Your task to perform on an android device: show emergency info Image 0: 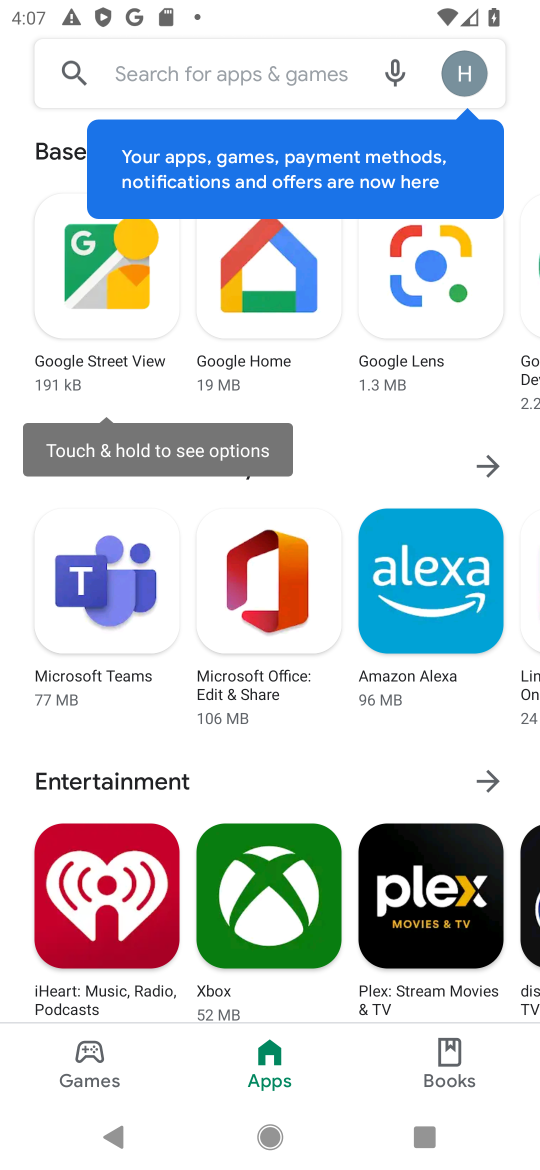
Step 0: press home button
Your task to perform on an android device: show emergency info Image 1: 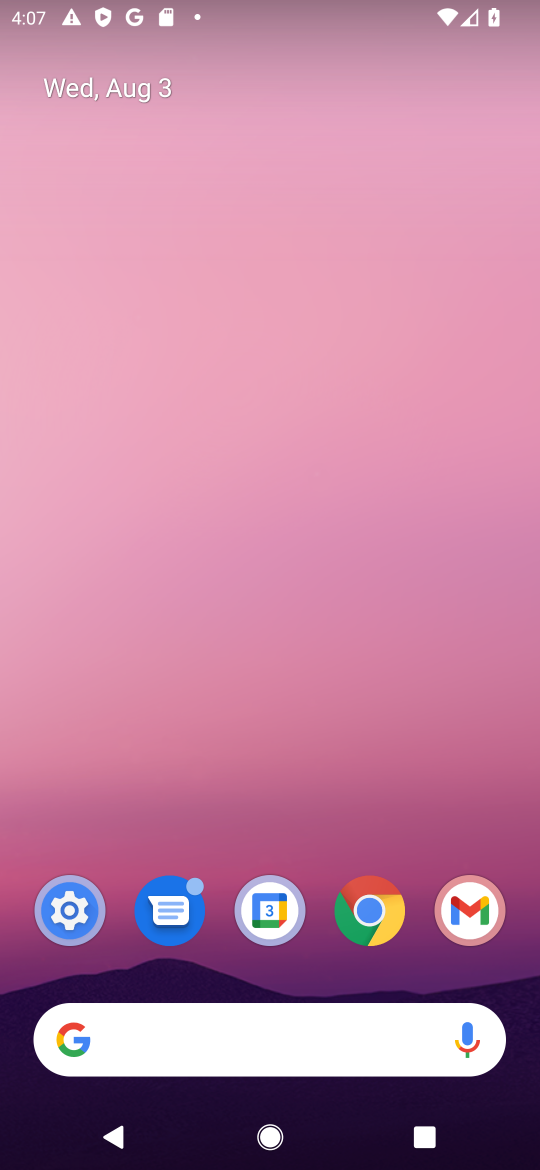
Step 1: drag from (61, 1111) to (309, 2)
Your task to perform on an android device: show emergency info Image 2: 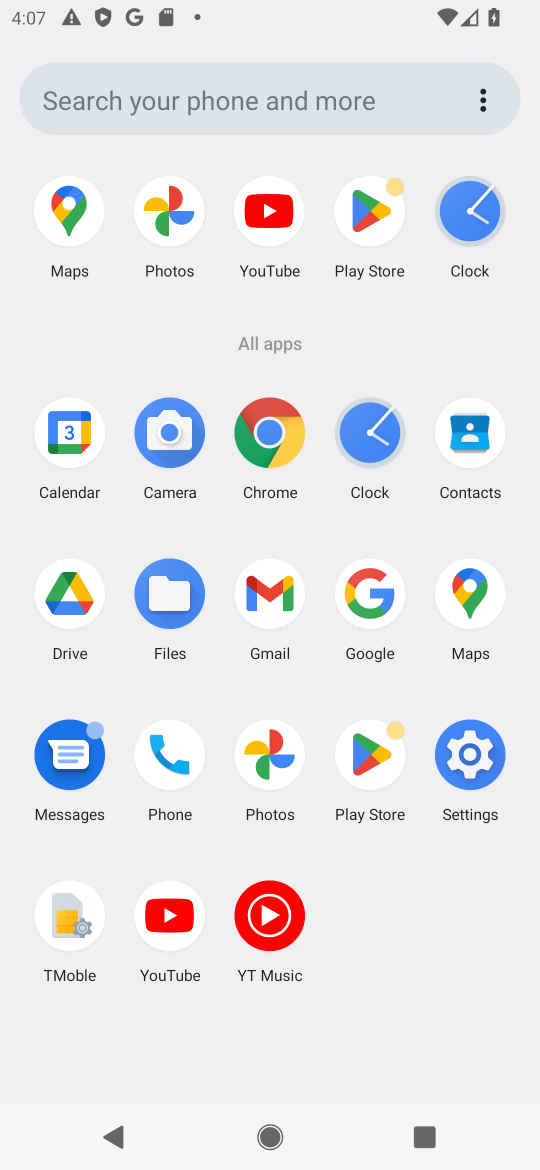
Step 2: click (471, 775)
Your task to perform on an android device: show emergency info Image 3: 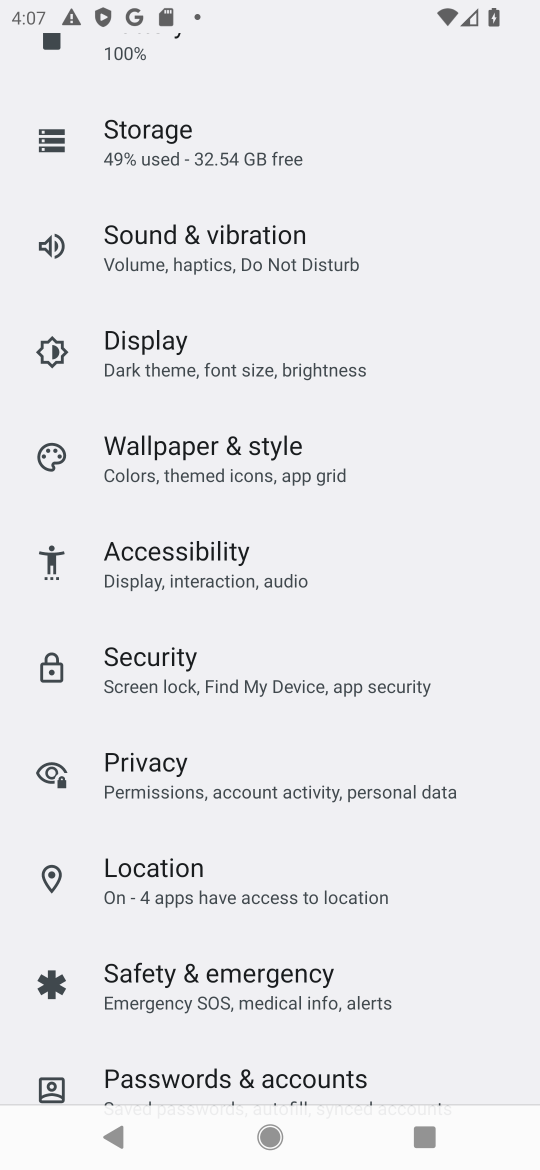
Step 3: drag from (313, 1026) to (425, 307)
Your task to perform on an android device: show emergency info Image 4: 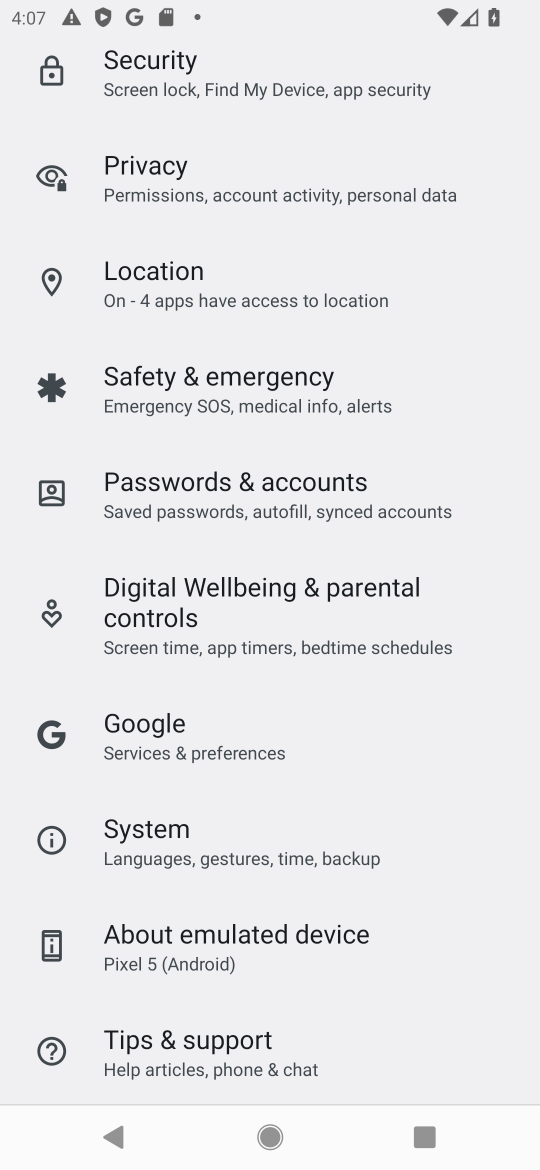
Step 4: click (250, 398)
Your task to perform on an android device: show emergency info Image 5: 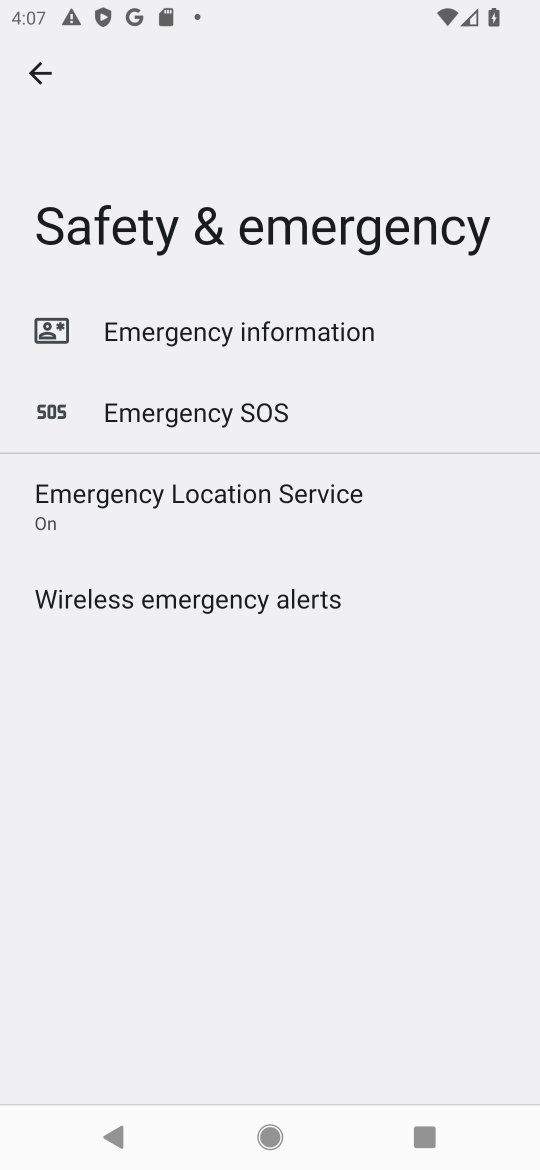
Step 5: click (234, 353)
Your task to perform on an android device: show emergency info Image 6: 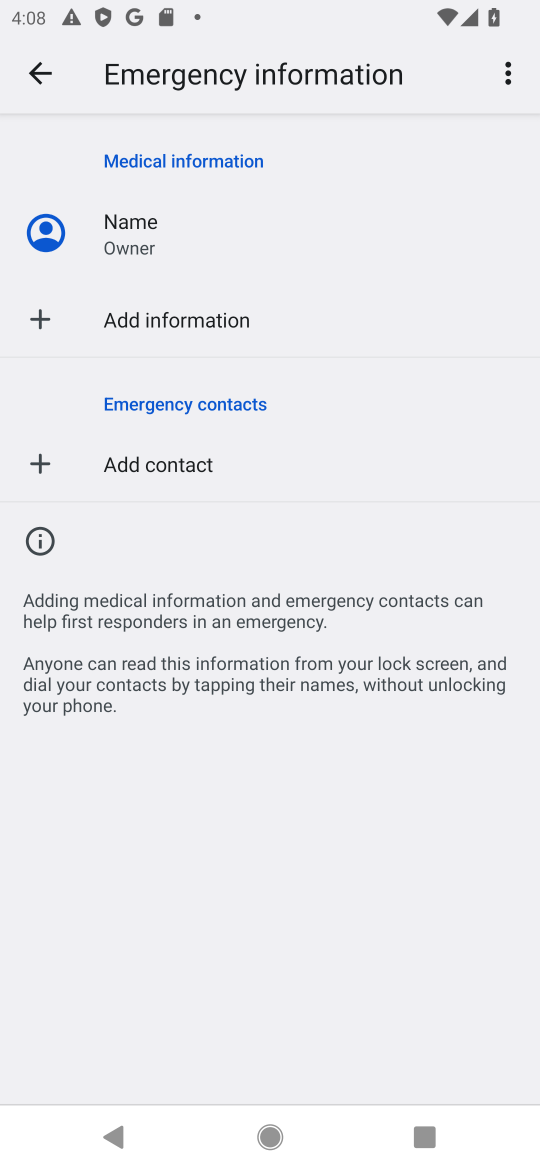
Step 6: task complete